Your task to perform on an android device: delete a single message in the gmail app Image 0: 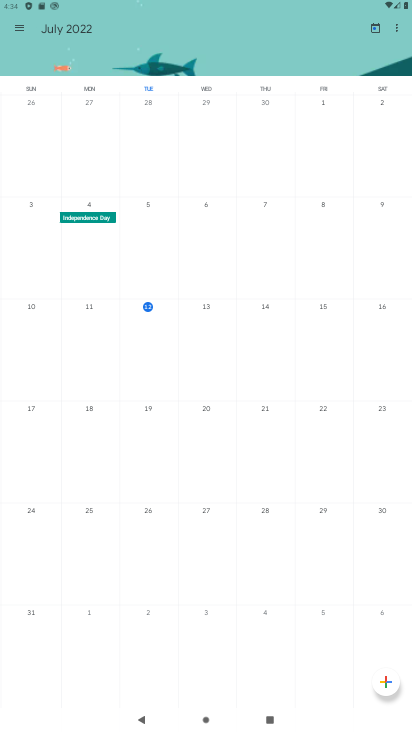
Step 0: press home button
Your task to perform on an android device: delete a single message in the gmail app Image 1: 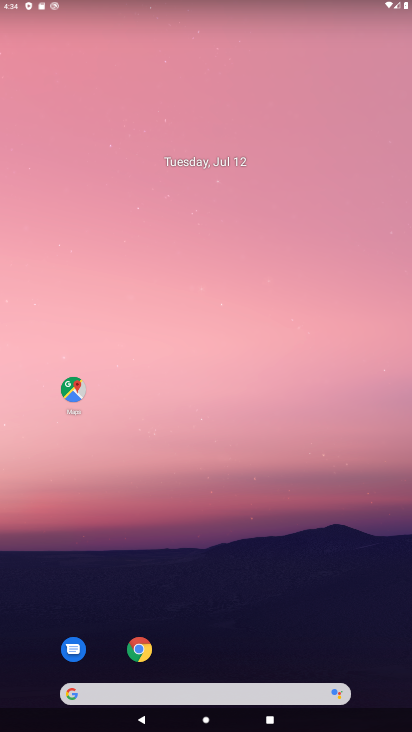
Step 1: drag from (178, 697) to (191, 9)
Your task to perform on an android device: delete a single message in the gmail app Image 2: 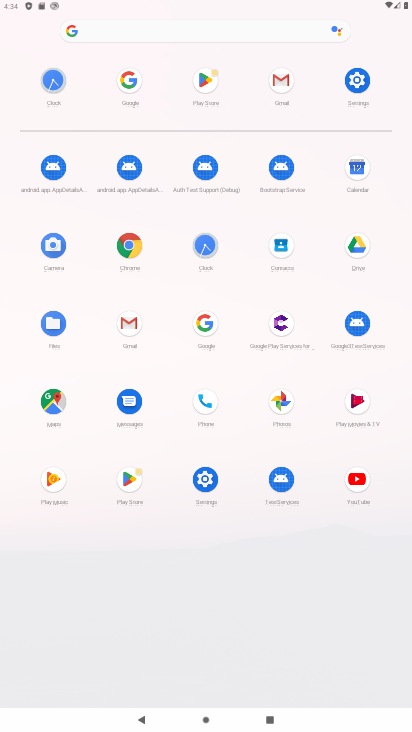
Step 2: click (283, 79)
Your task to perform on an android device: delete a single message in the gmail app Image 3: 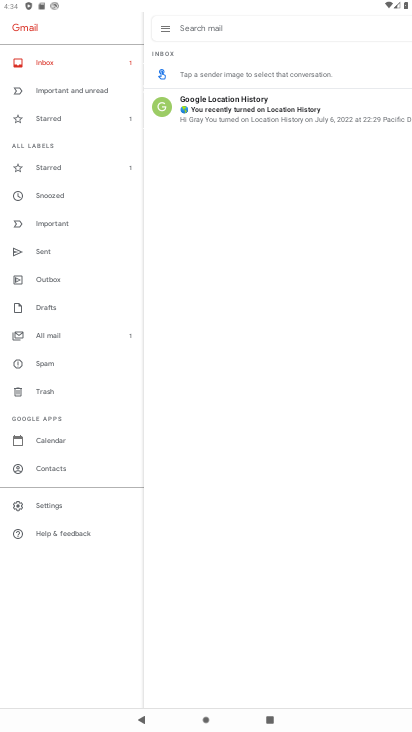
Step 3: click (216, 105)
Your task to perform on an android device: delete a single message in the gmail app Image 4: 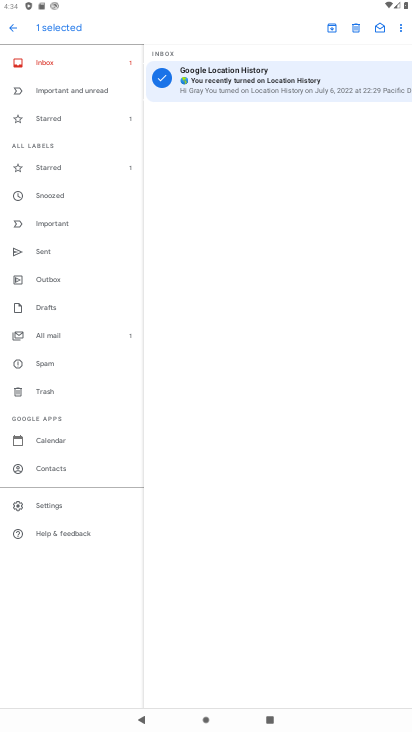
Step 4: click (354, 25)
Your task to perform on an android device: delete a single message in the gmail app Image 5: 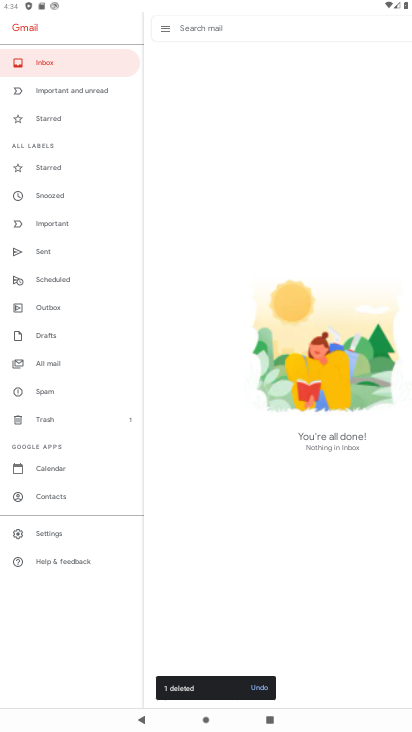
Step 5: task complete